Your task to perform on an android device: toggle priority inbox in the gmail app Image 0: 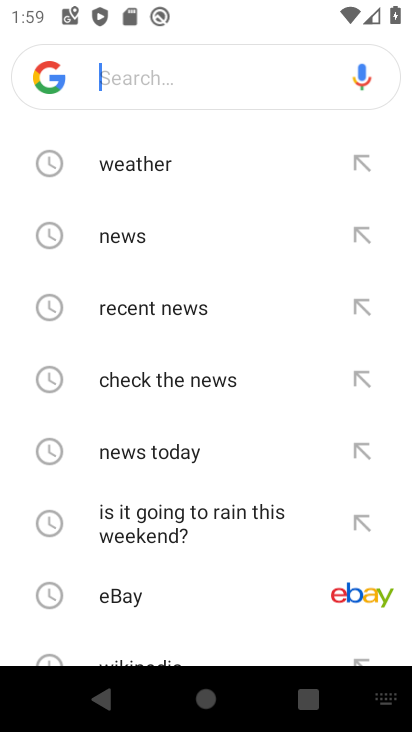
Step 0: press back button
Your task to perform on an android device: toggle priority inbox in the gmail app Image 1: 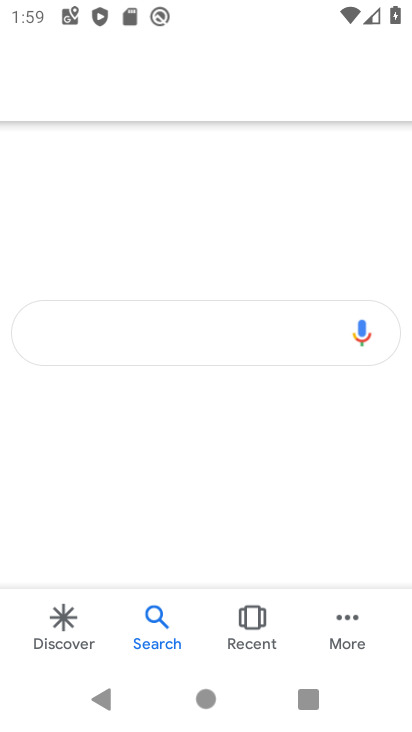
Step 1: press home button
Your task to perform on an android device: toggle priority inbox in the gmail app Image 2: 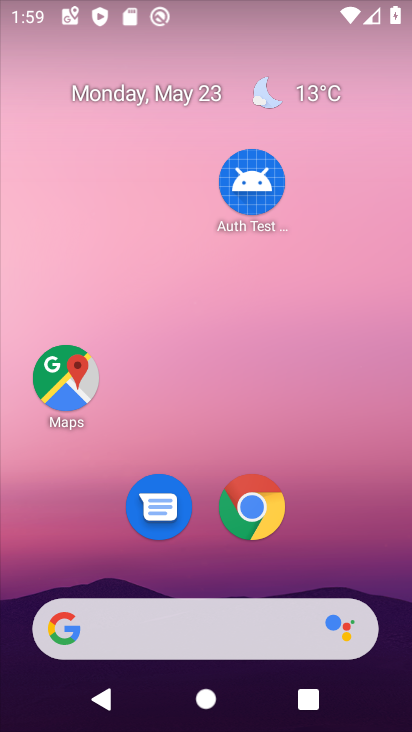
Step 2: drag from (255, 634) to (118, 69)
Your task to perform on an android device: toggle priority inbox in the gmail app Image 3: 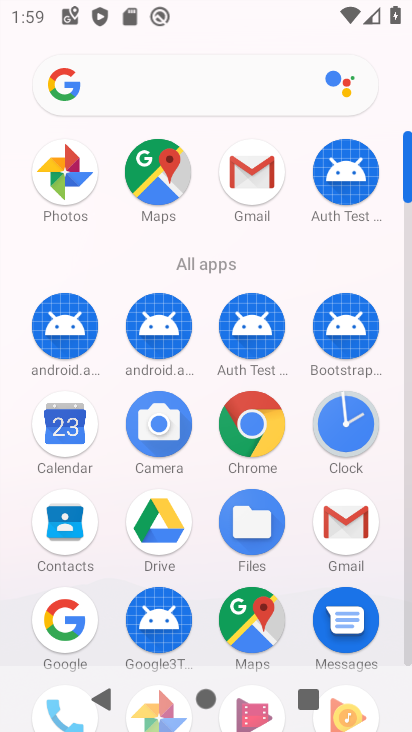
Step 3: click (355, 523)
Your task to perform on an android device: toggle priority inbox in the gmail app Image 4: 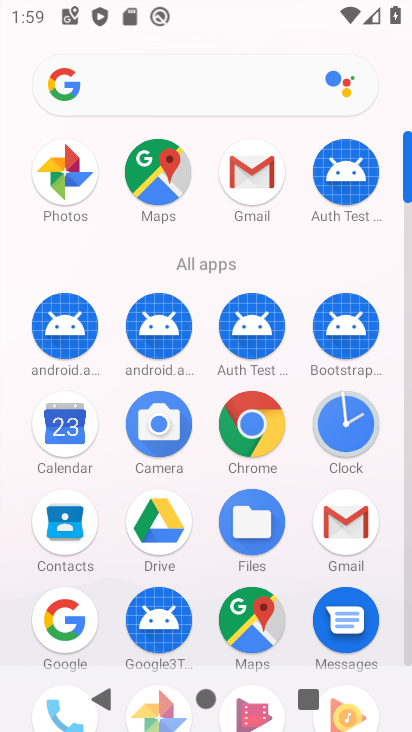
Step 4: click (355, 523)
Your task to perform on an android device: toggle priority inbox in the gmail app Image 5: 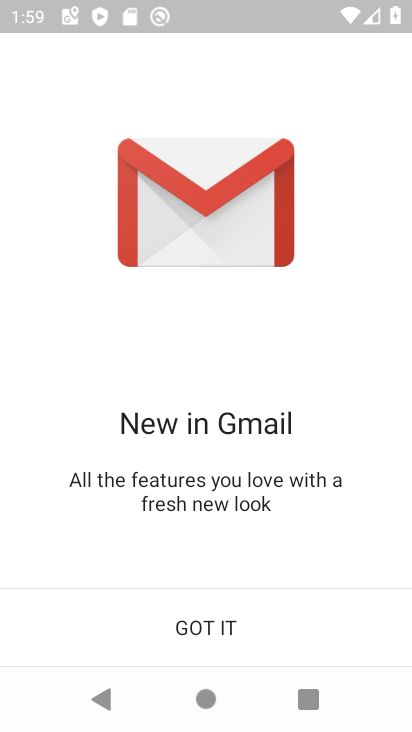
Step 5: click (211, 637)
Your task to perform on an android device: toggle priority inbox in the gmail app Image 6: 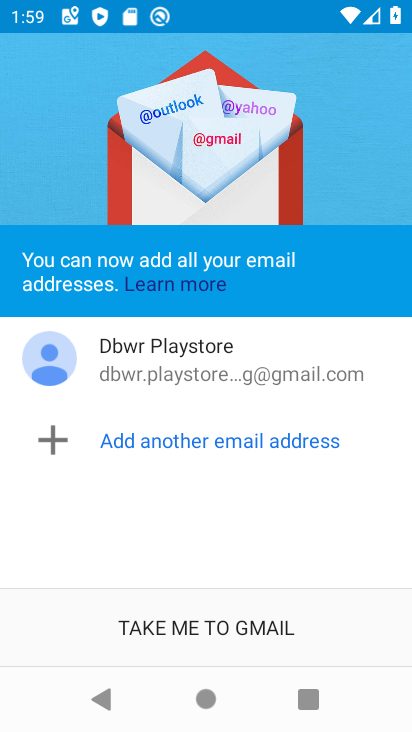
Step 6: click (222, 616)
Your task to perform on an android device: toggle priority inbox in the gmail app Image 7: 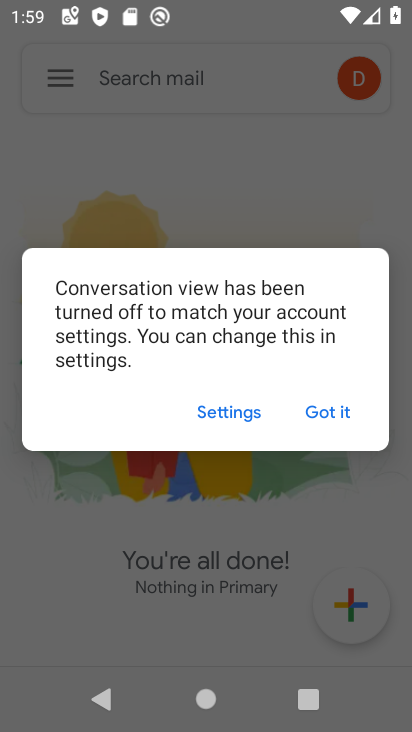
Step 7: click (324, 411)
Your task to perform on an android device: toggle priority inbox in the gmail app Image 8: 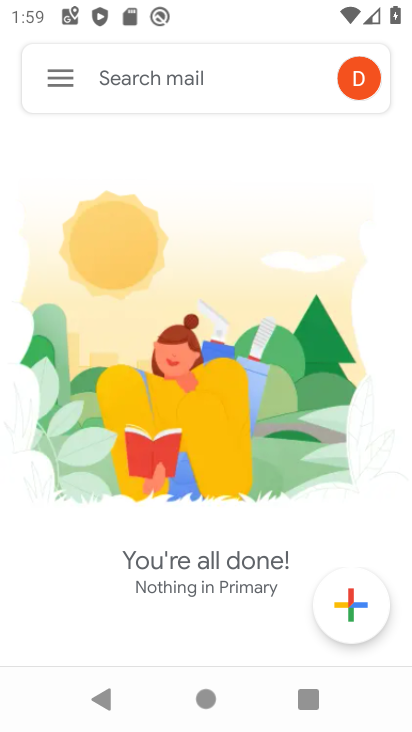
Step 8: drag from (225, 625) to (170, 214)
Your task to perform on an android device: toggle priority inbox in the gmail app Image 9: 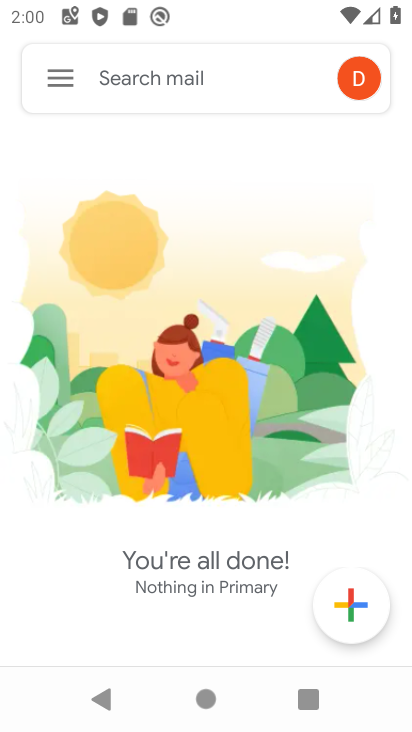
Step 9: click (52, 75)
Your task to perform on an android device: toggle priority inbox in the gmail app Image 10: 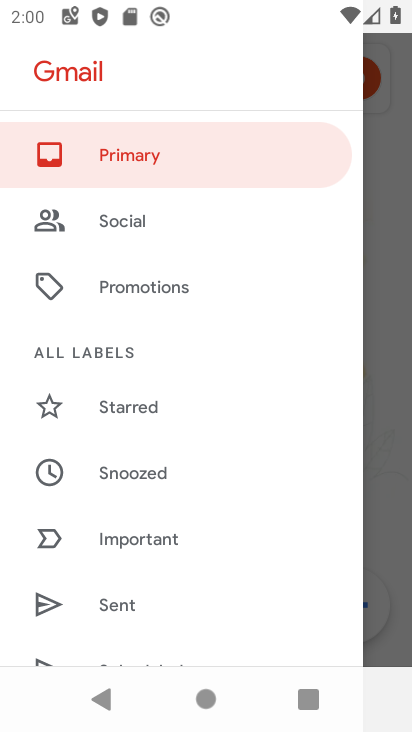
Step 10: drag from (189, 235) to (190, 187)
Your task to perform on an android device: toggle priority inbox in the gmail app Image 11: 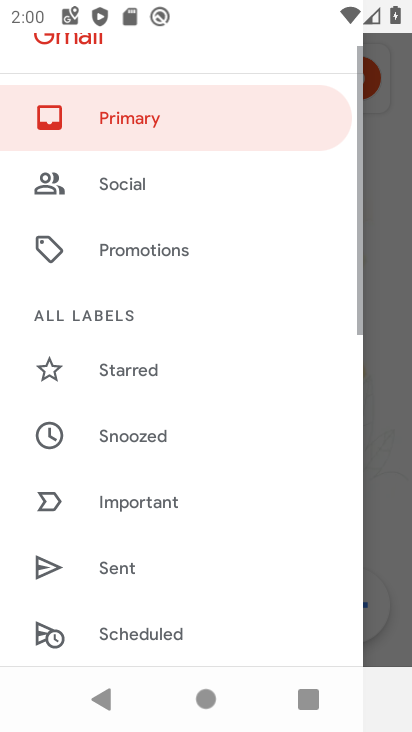
Step 11: drag from (254, 531) to (203, 176)
Your task to perform on an android device: toggle priority inbox in the gmail app Image 12: 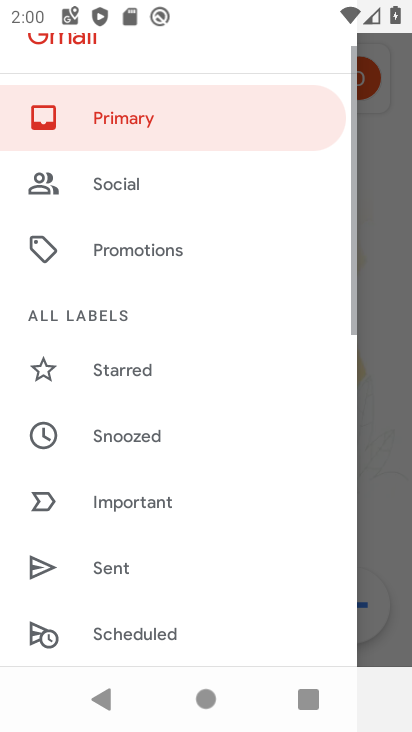
Step 12: drag from (171, 478) to (167, 215)
Your task to perform on an android device: toggle priority inbox in the gmail app Image 13: 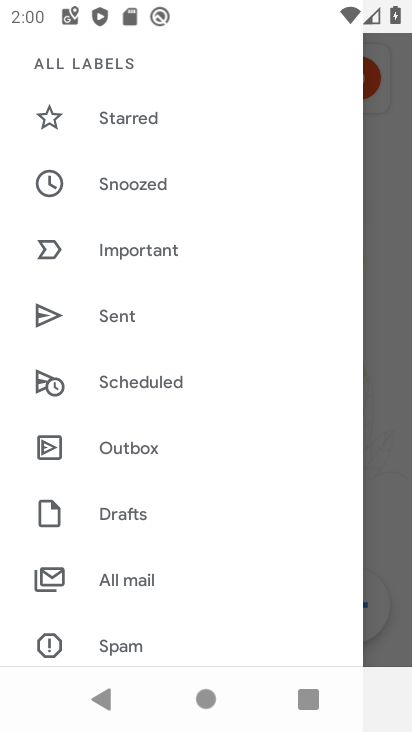
Step 13: drag from (162, 428) to (138, 244)
Your task to perform on an android device: toggle priority inbox in the gmail app Image 14: 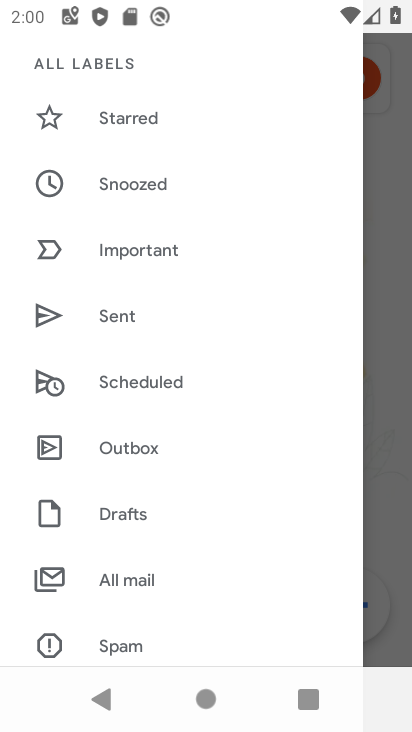
Step 14: drag from (183, 399) to (183, 31)
Your task to perform on an android device: toggle priority inbox in the gmail app Image 15: 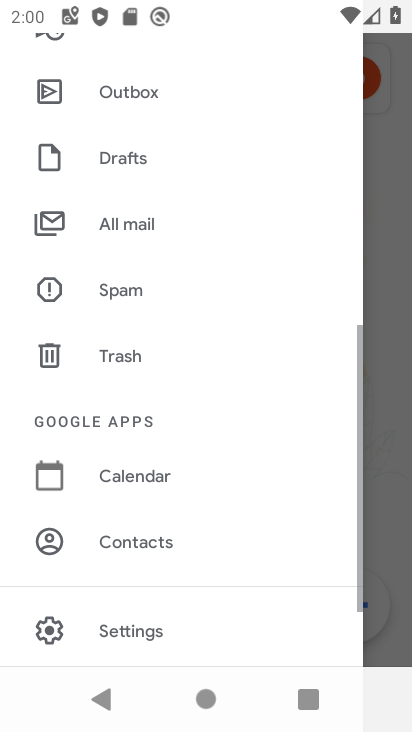
Step 15: drag from (194, 459) to (191, 67)
Your task to perform on an android device: toggle priority inbox in the gmail app Image 16: 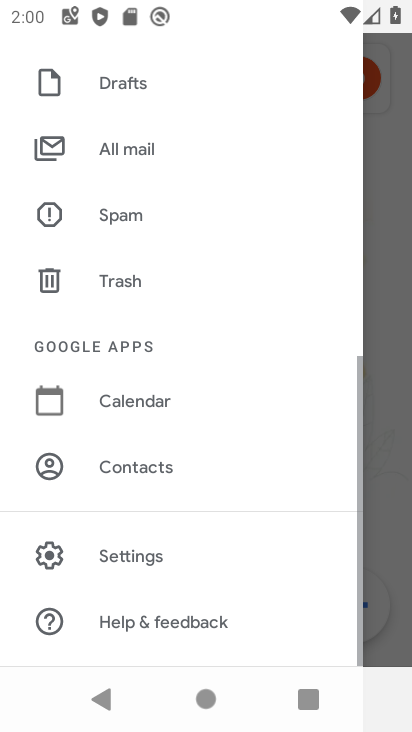
Step 16: drag from (157, 511) to (153, 179)
Your task to perform on an android device: toggle priority inbox in the gmail app Image 17: 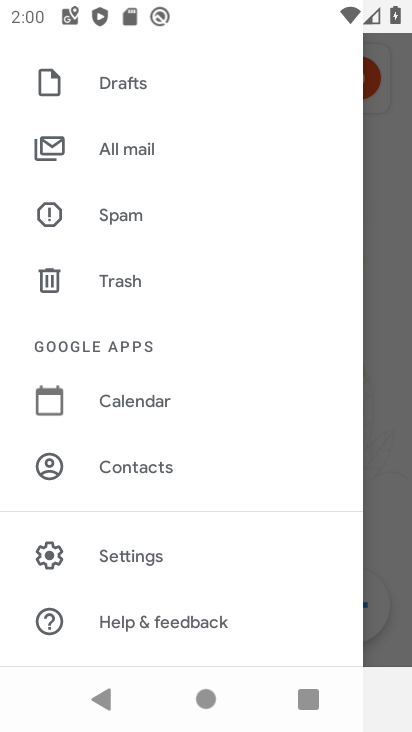
Step 17: click (111, 546)
Your task to perform on an android device: toggle priority inbox in the gmail app Image 18: 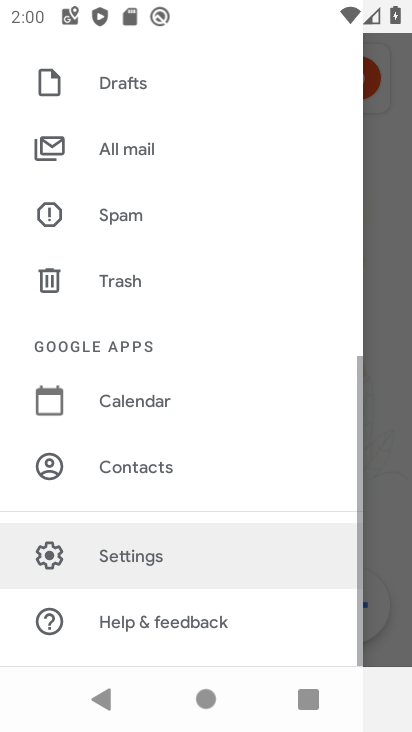
Step 18: click (118, 559)
Your task to perform on an android device: toggle priority inbox in the gmail app Image 19: 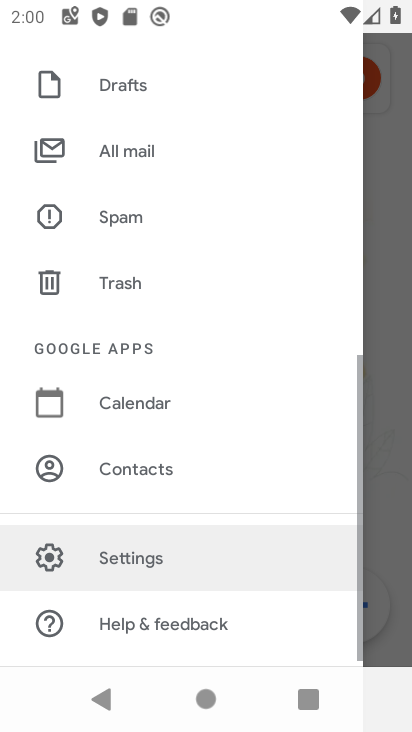
Step 19: click (118, 559)
Your task to perform on an android device: toggle priority inbox in the gmail app Image 20: 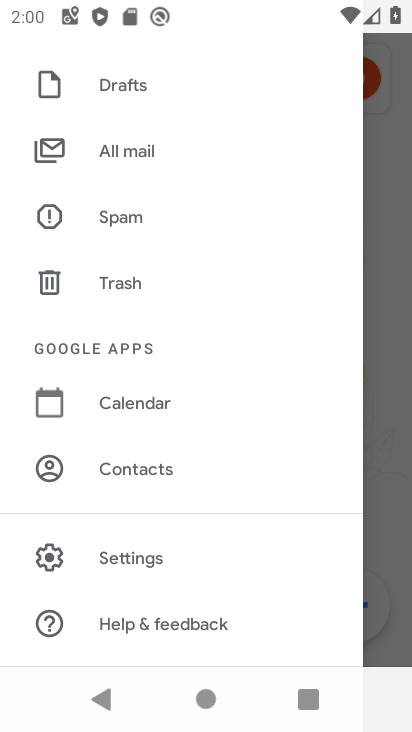
Step 20: click (134, 553)
Your task to perform on an android device: toggle priority inbox in the gmail app Image 21: 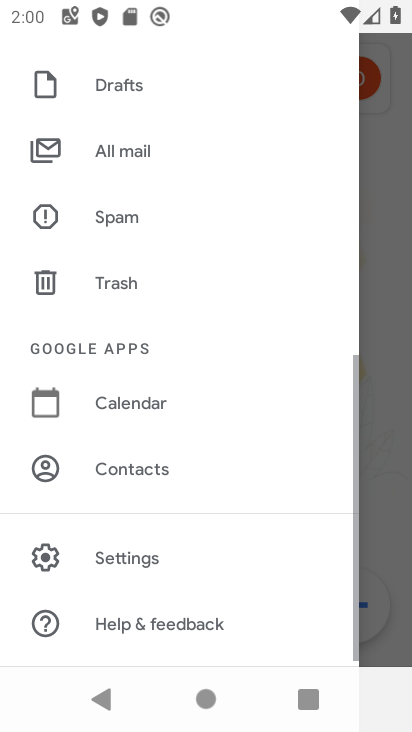
Step 21: click (134, 553)
Your task to perform on an android device: toggle priority inbox in the gmail app Image 22: 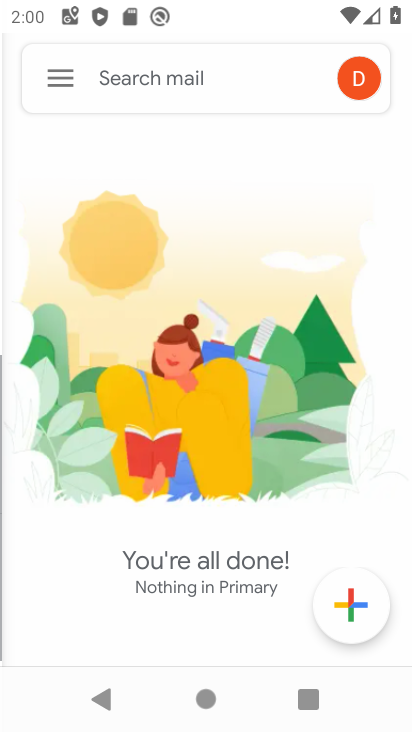
Step 22: click (134, 553)
Your task to perform on an android device: toggle priority inbox in the gmail app Image 23: 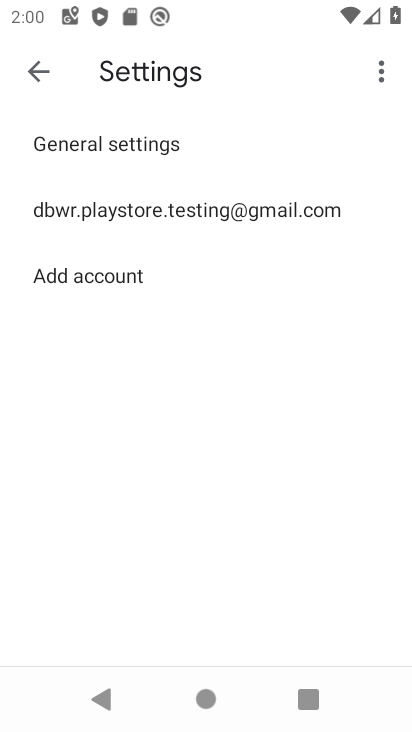
Step 23: click (113, 202)
Your task to perform on an android device: toggle priority inbox in the gmail app Image 24: 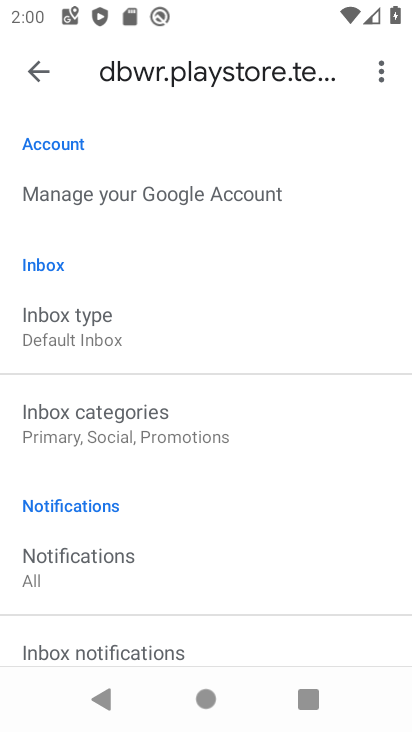
Step 24: click (58, 317)
Your task to perform on an android device: toggle priority inbox in the gmail app Image 25: 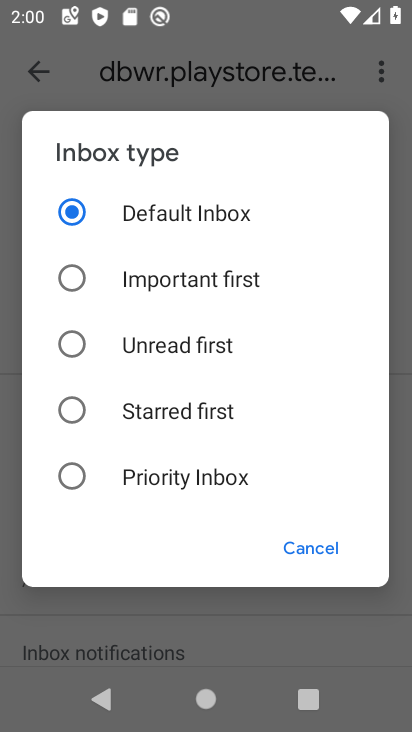
Step 25: click (67, 475)
Your task to perform on an android device: toggle priority inbox in the gmail app Image 26: 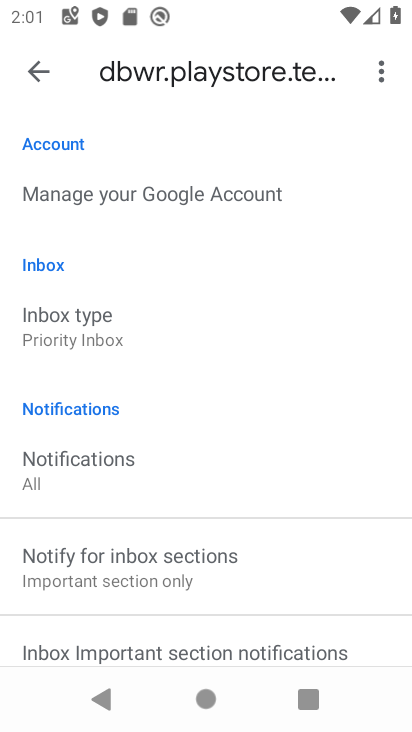
Step 26: click (65, 333)
Your task to perform on an android device: toggle priority inbox in the gmail app Image 27: 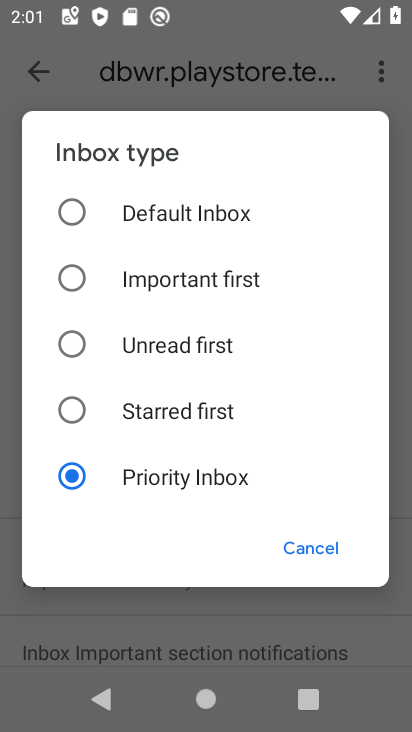
Step 27: click (76, 468)
Your task to perform on an android device: toggle priority inbox in the gmail app Image 28: 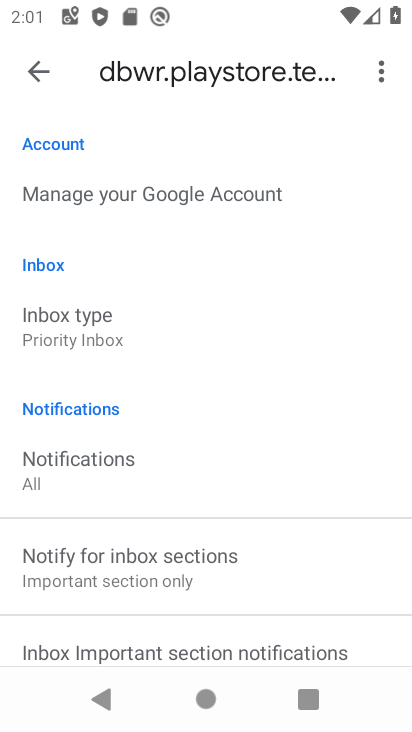
Step 28: click (329, 536)
Your task to perform on an android device: toggle priority inbox in the gmail app Image 29: 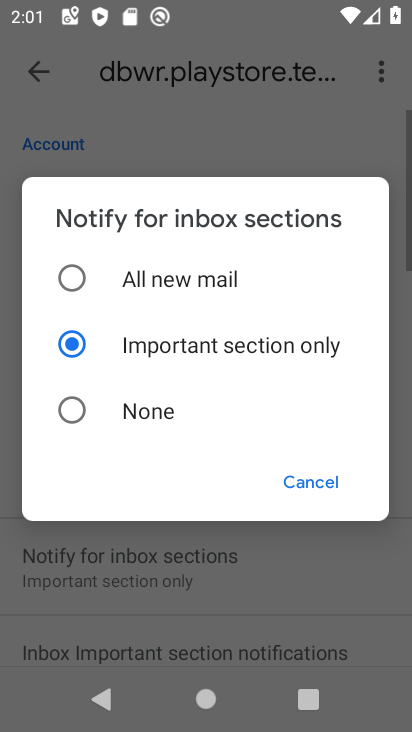
Step 29: task complete